Your task to perform on an android device: Open privacy settings Image 0: 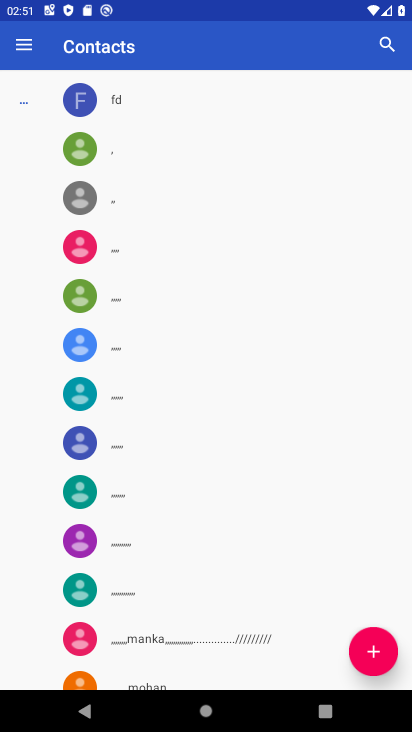
Step 0: press home button
Your task to perform on an android device: Open privacy settings Image 1: 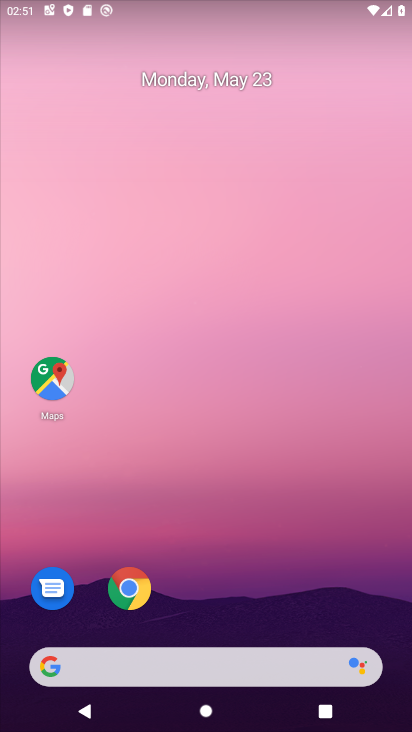
Step 1: drag from (217, 631) to (178, 135)
Your task to perform on an android device: Open privacy settings Image 2: 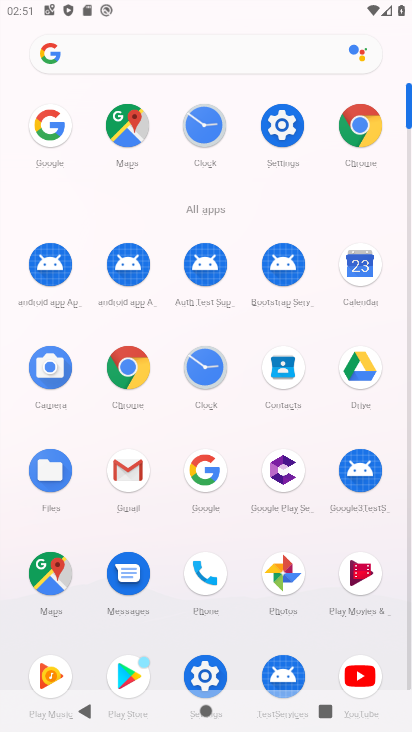
Step 2: click (278, 122)
Your task to perform on an android device: Open privacy settings Image 3: 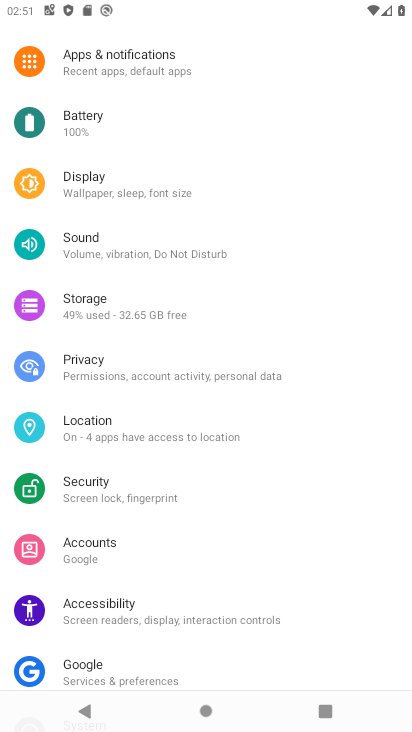
Step 3: click (91, 369)
Your task to perform on an android device: Open privacy settings Image 4: 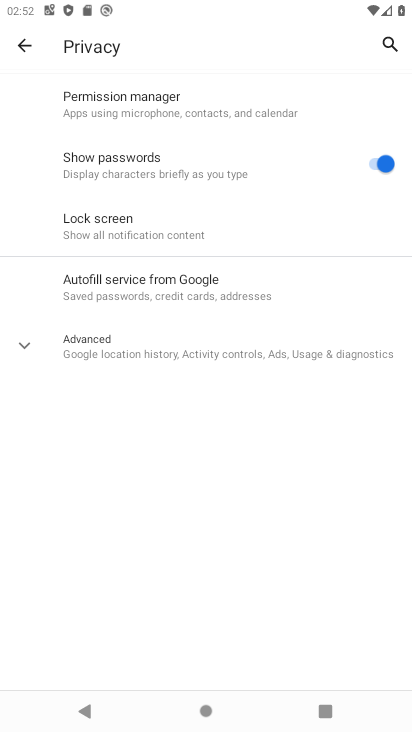
Step 4: task complete